Your task to perform on an android device: set an alarm Image 0: 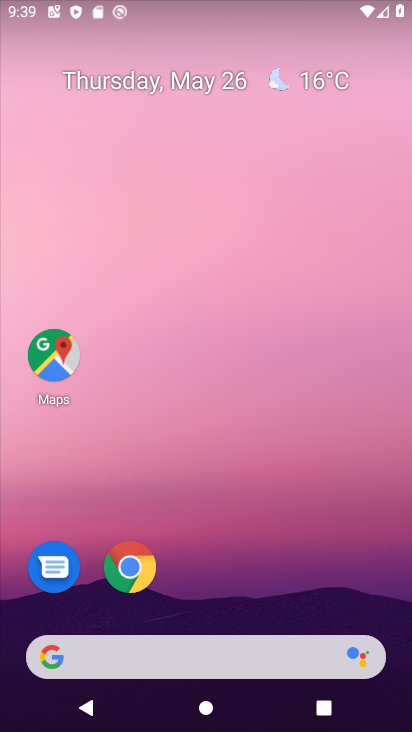
Step 0: drag from (397, 683) to (376, 165)
Your task to perform on an android device: set an alarm Image 1: 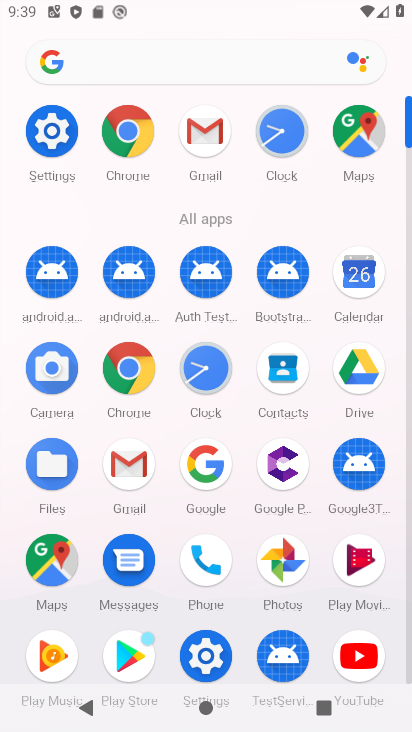
Step 1: click (204, 375)
Your task to perform on an android device: set an alarm Image 2: 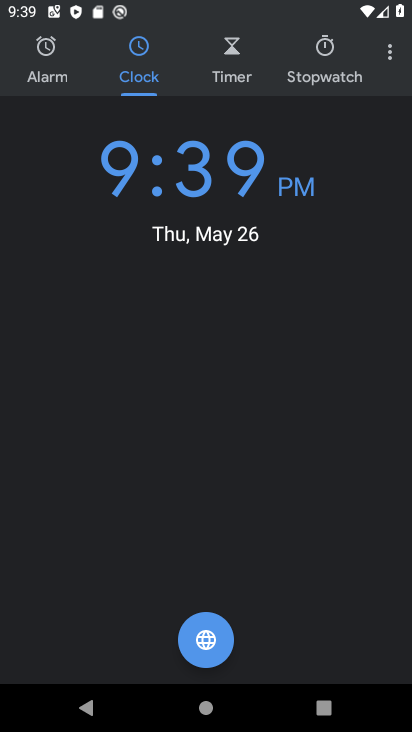
Step 2: click (48, 52)
Your task to perform on an android device: set an alarm Image 3: 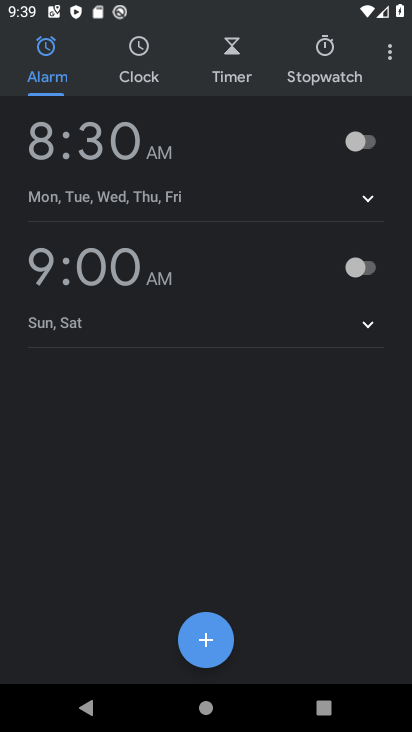
Step 3: click (373, 139)
Your task to perform on an android device: set an alarm Image 4: 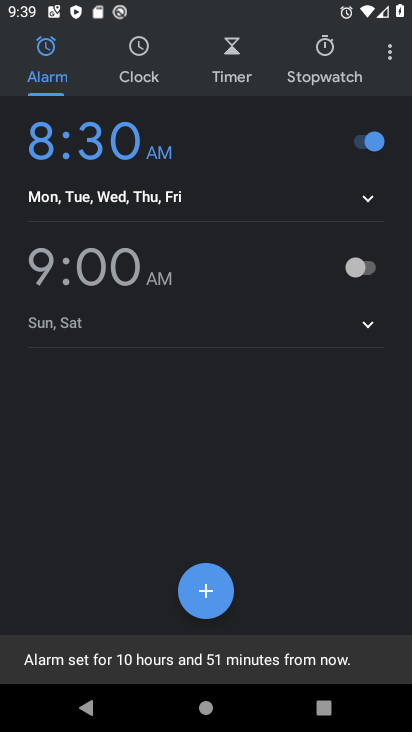
Step 4: task complete